Your task to perform on an android device: Open the map Image 0: 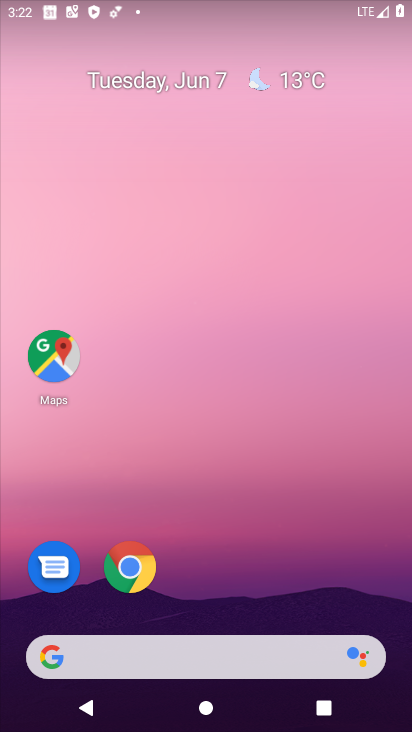
Step 0: click (54, 361)
Your task to perform on an android device: Open the map Image 1: 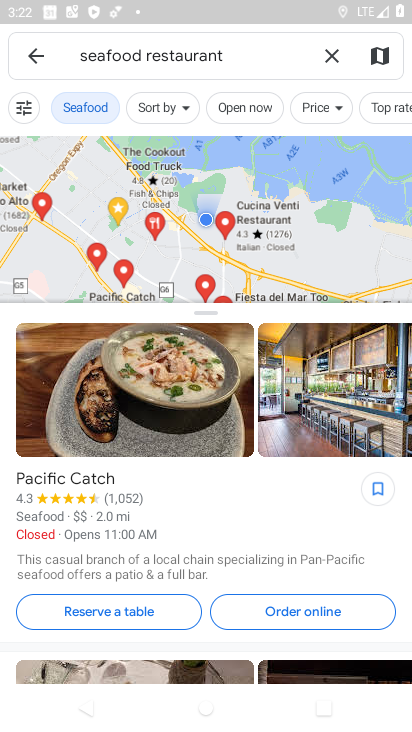
Step 1: task complete